Your task to perform on an android device: What's the weather today? Image 0: 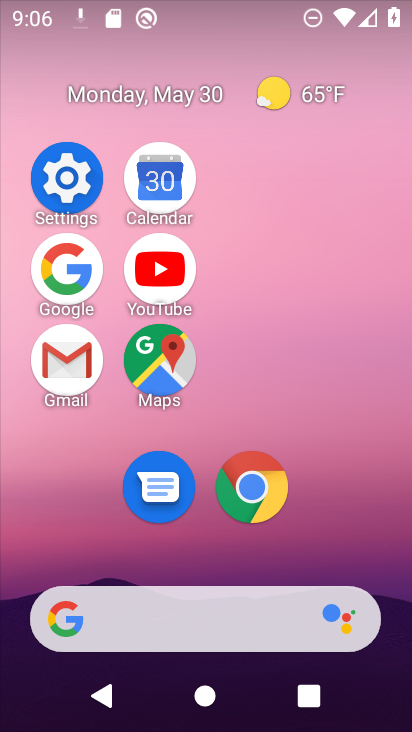
Step 0: click (81, 258)
Your task to perform on an android device: What's the weather today? Image 1: 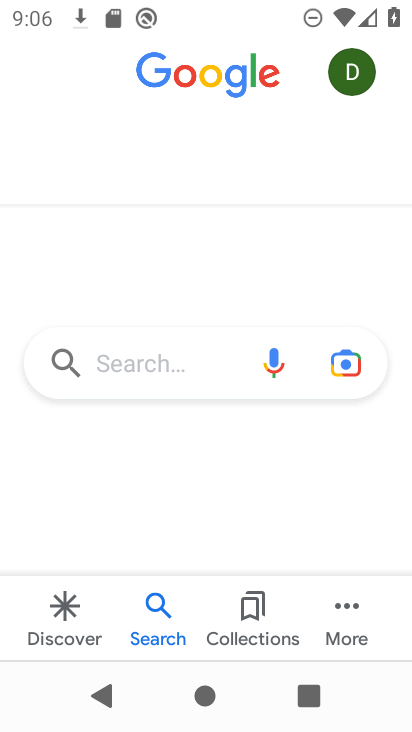
Step 1: click (129, 372)
Your task to perform on an android device: What's the weather today? Image 2: 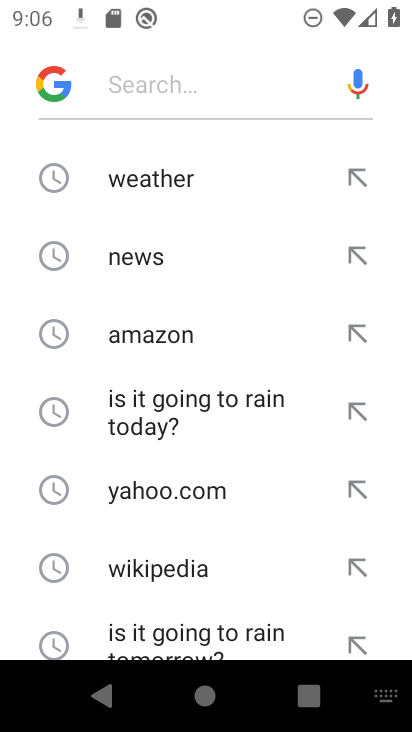
Step 2: click (159, 178)
Your task to perform on an android device: What's the weather today? Image 3: 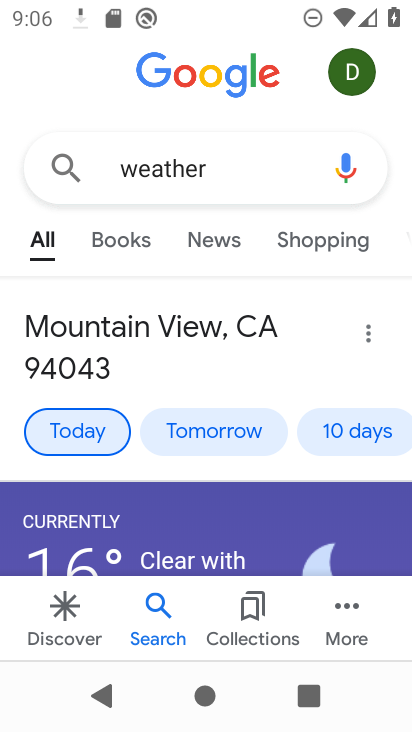
Step 3: task complete